Your task to perform on an android device: Go to Reddit.com Image 0: 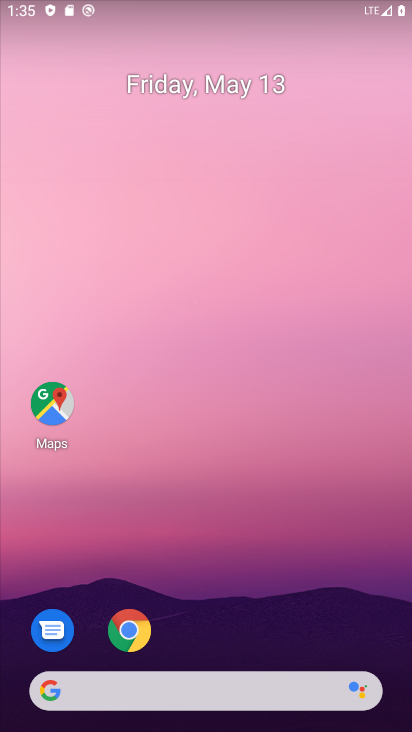
Step 0: click (132, 635)
Your task to perform on an android device: Go to Reddit.com Image 1: 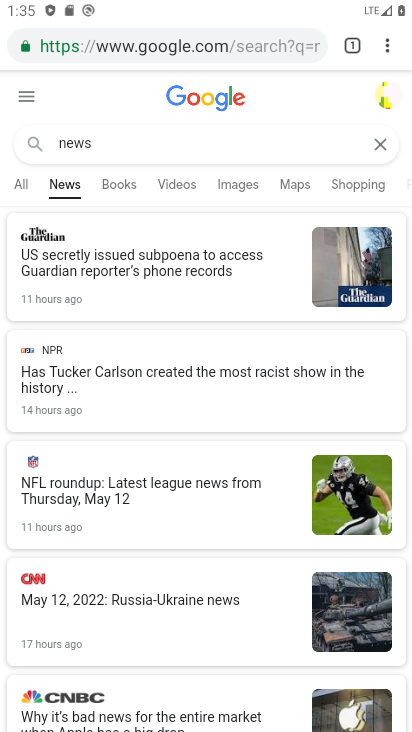
Step 1: click (164, 35)
Your task to perform on an android device: Go to Reddit.com Image 2: 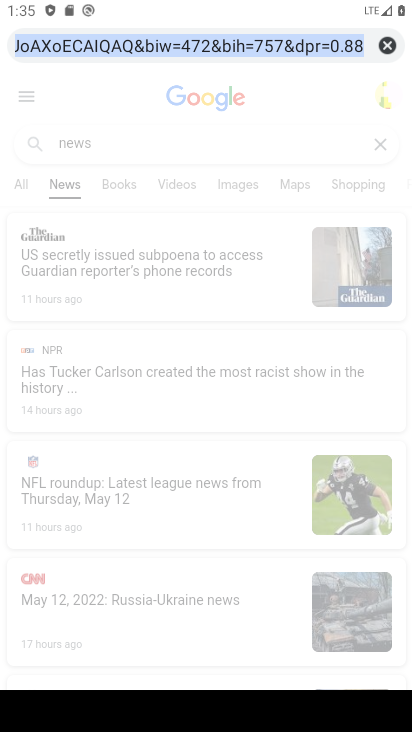
Step 2: type "reddit.com"
Your task to perform on an android device: Go to Reddit.com Image 3: 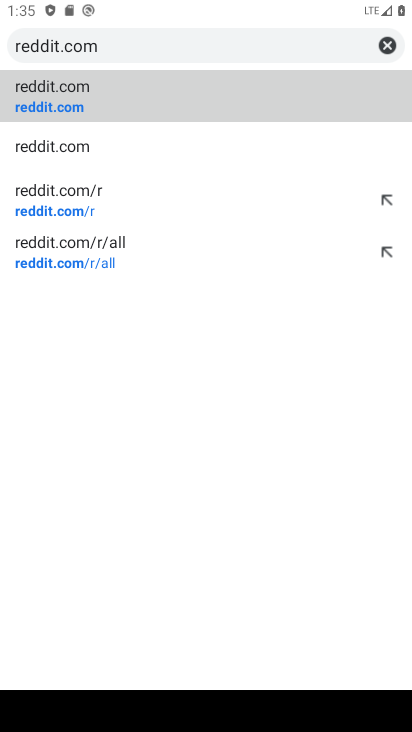
Step 3: click (66, 105)
Your task to perform on an android device: Go to Reddit.com Image 4: 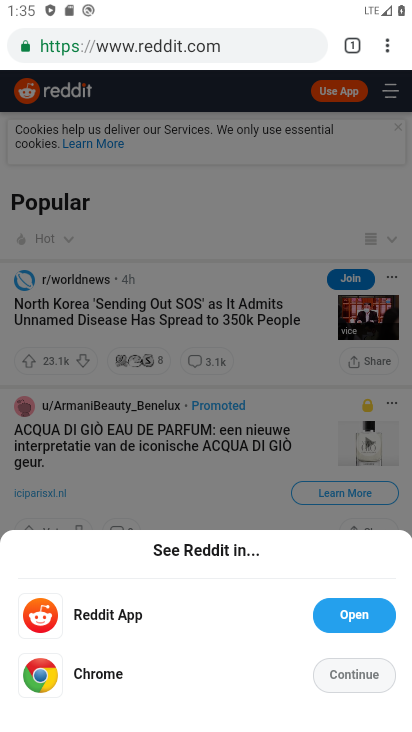
Step 4: task complete